Your task to perform on an android device: Go to Yahoo.com Image 0: 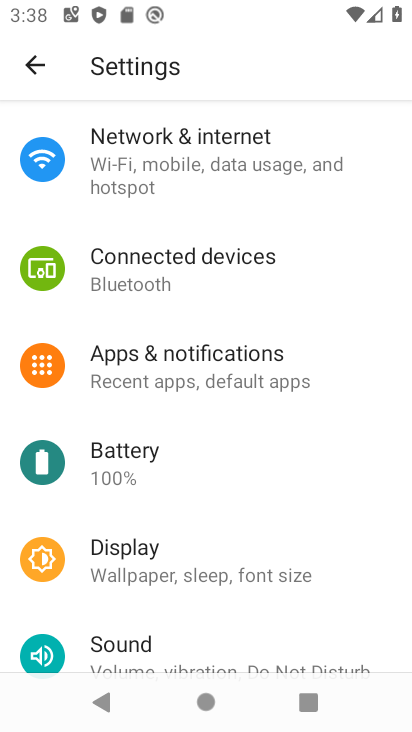
Step 0: press home button
Your task to perform on an android device: Go to Yahoo.com Image 1: 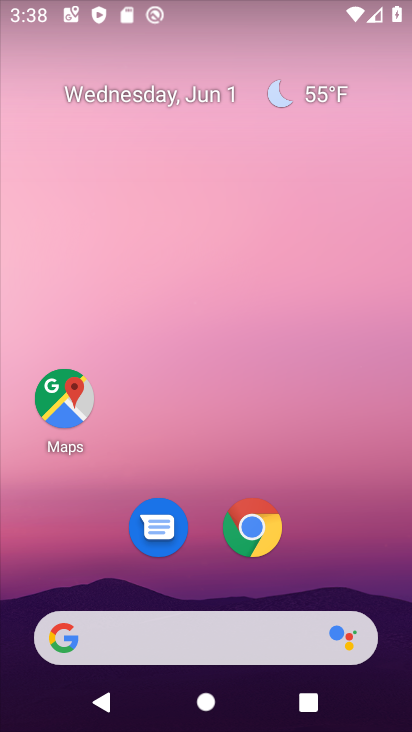
Step 1: click (248, 530)
Your task to perform on an android device: Go to Yahoo.com Image 2: 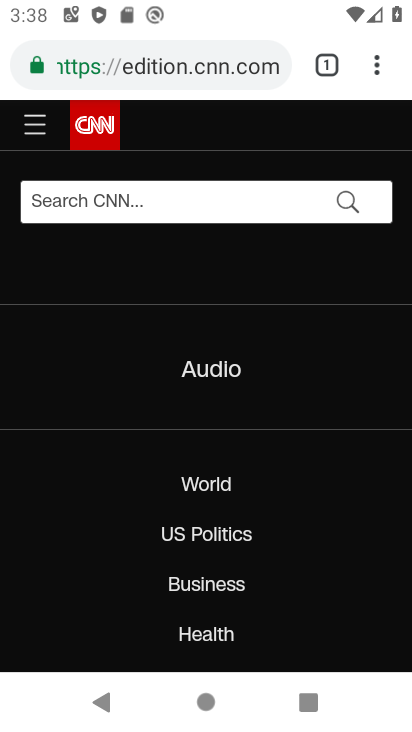
Step 2: click (158, 74)
Your task to perform on an android device: Go to Yahoo.com Image 3: 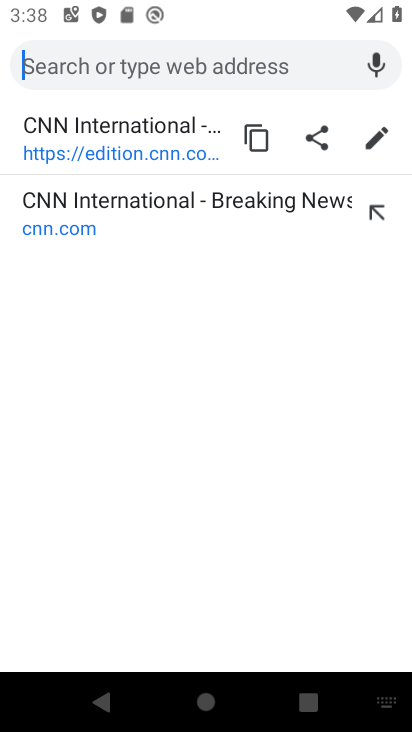
Step 3: type "Yahoo.com"
Your task to perform on an android device: Go to Yahoo.com Image 4: 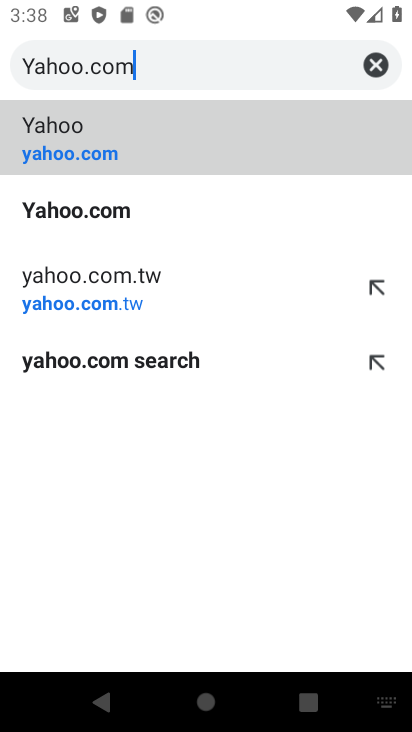
Step 4: click (109, 147)
Your task to perform on an android device: Go to Yahoo.com Image 5: 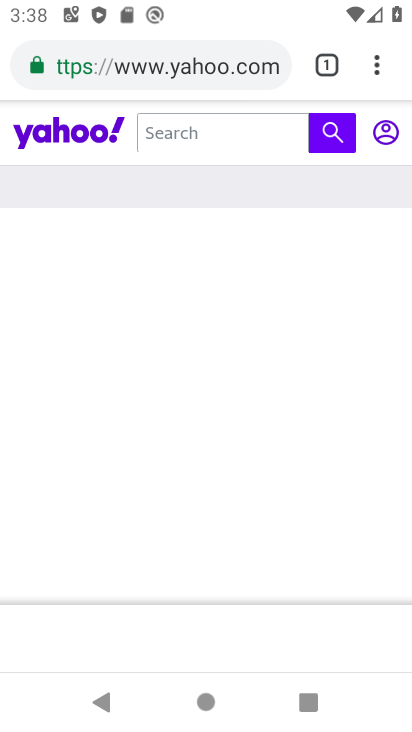
Step 5: task complete